Your task to perform on an android device: add a contact in the contacts app Image 0: 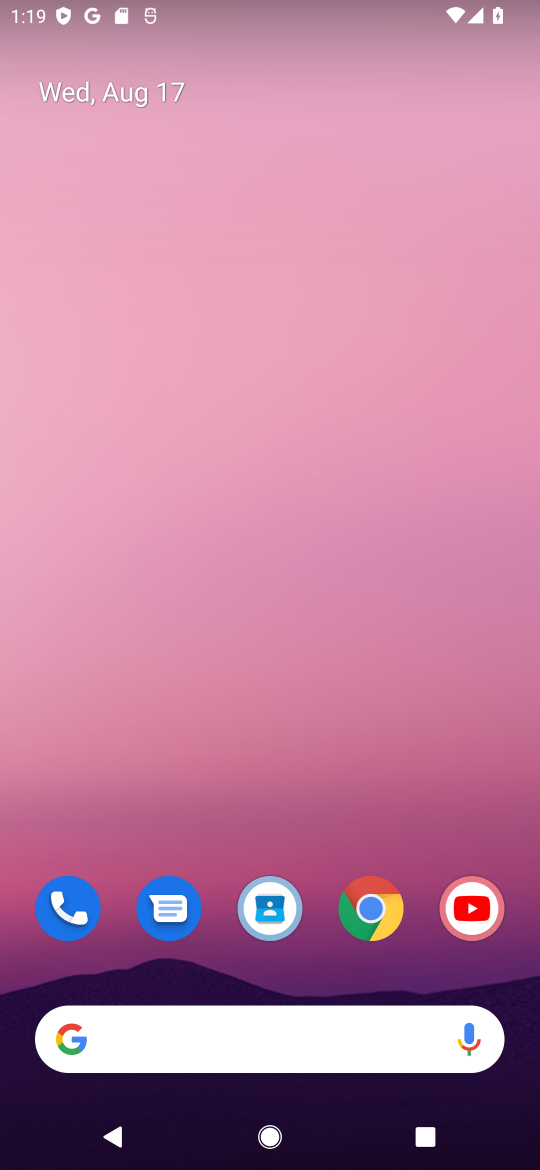
Step 0: press home button
Your task to perform on an android device: add a contact in the contacts app Image 1: 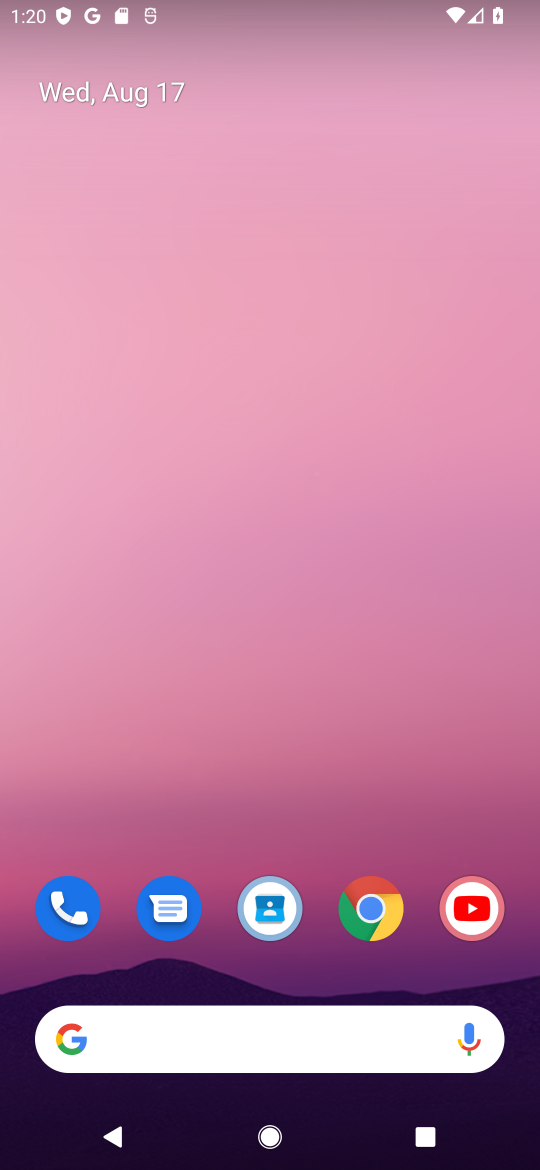
Step 1: click (267, 920)
Your task to perform on an android device: add a contact in the contacts app Image 2: 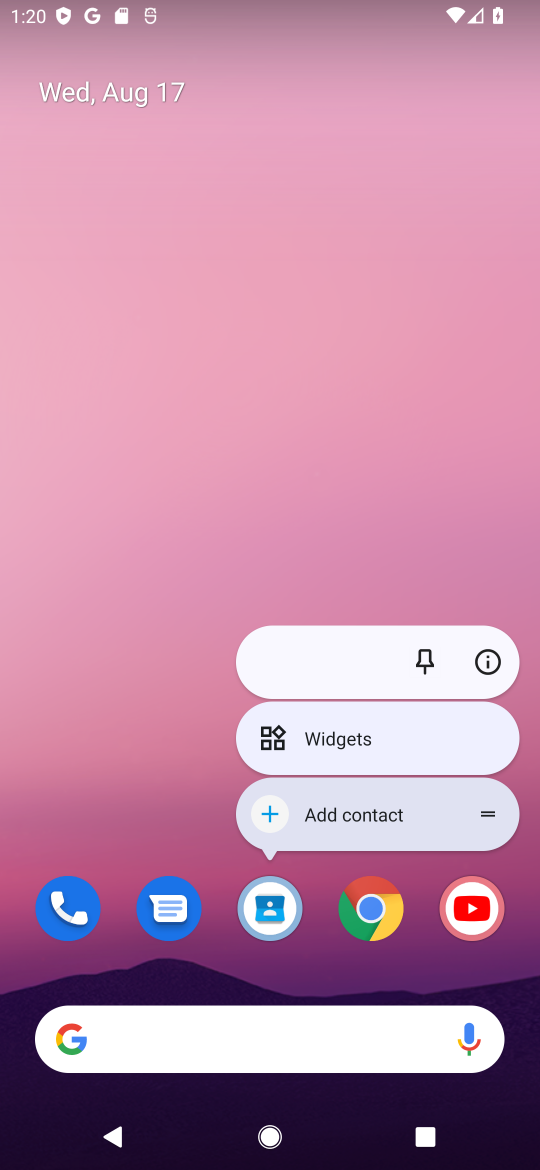
Step 2: click (267, 920)
Your task to perform on an android device: add a contact in the contacts app Image 3: 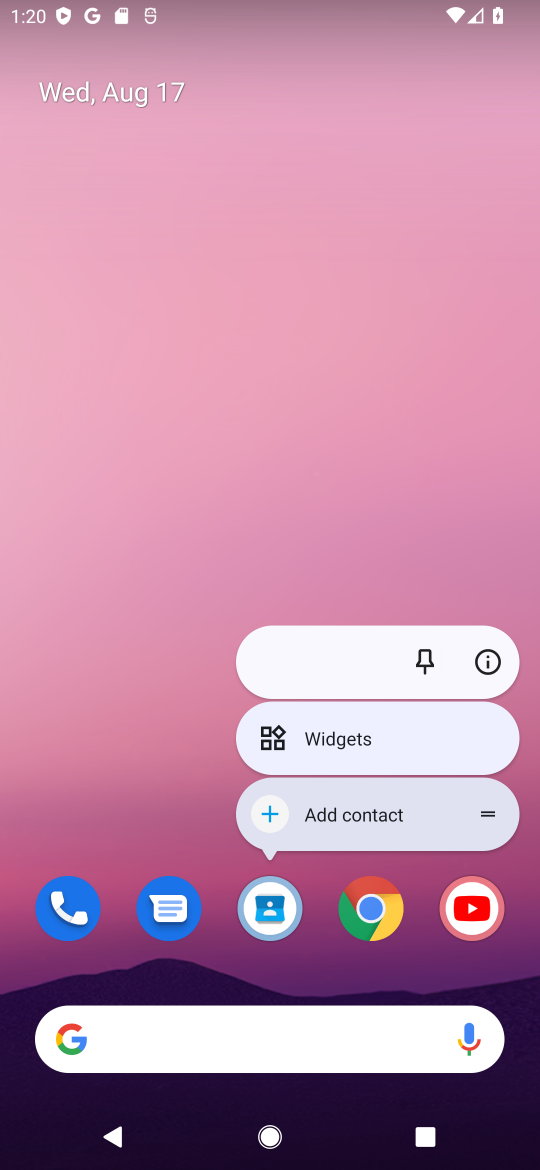
Step 3: click (267, 920)
Your task to perform on an android device: add a contact in the contacts app Image 4: 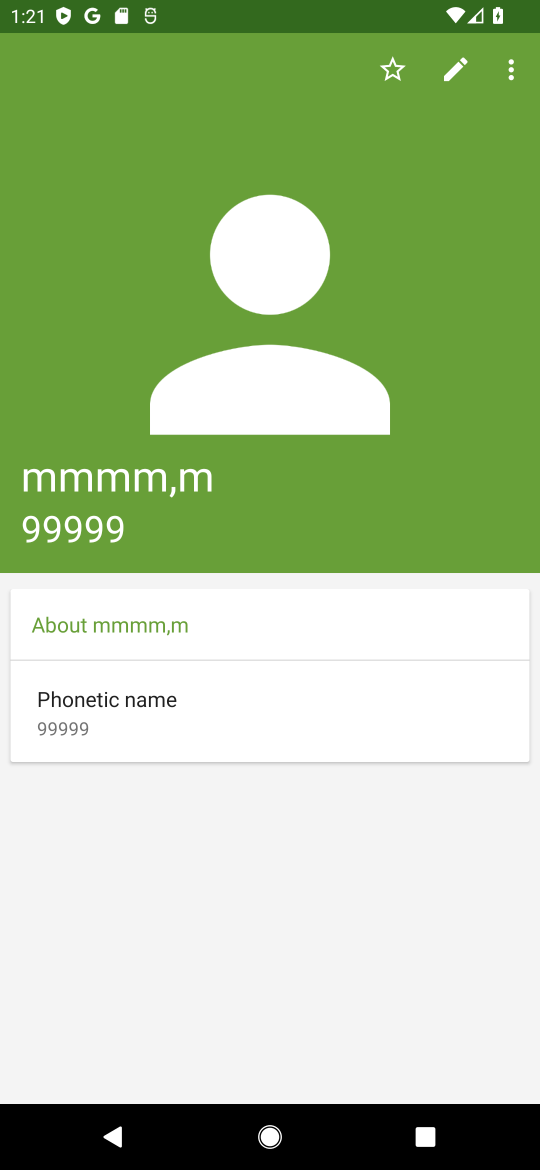
Step 4: press back button
Your task to perform on an android device: add a contact in the contacts app Image 5: 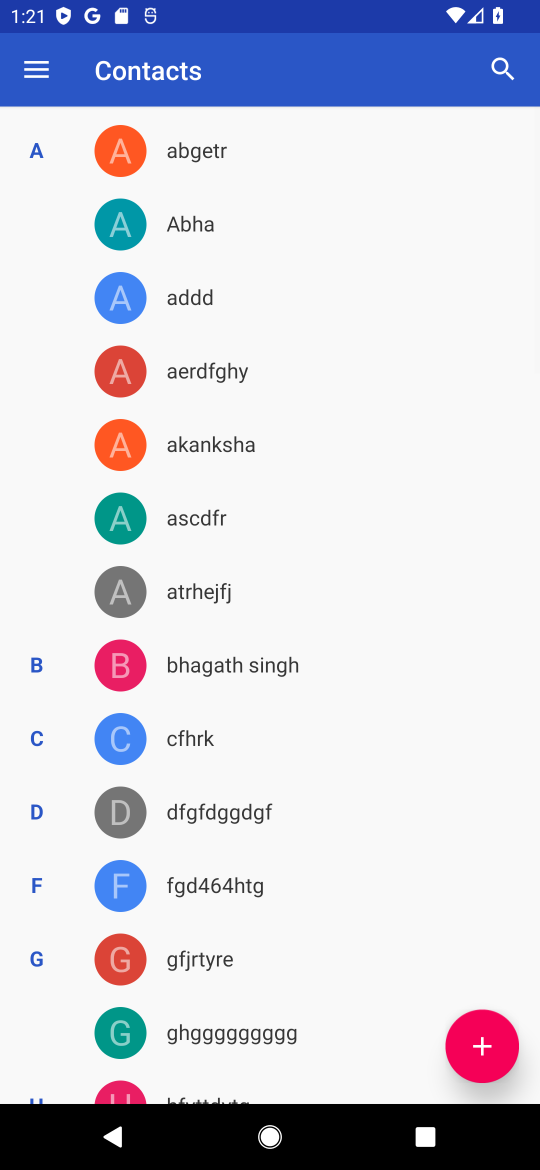
Step 5: click (473, 1057)
Your task to perform on an android device: add a contact in the contacts app Image 6: 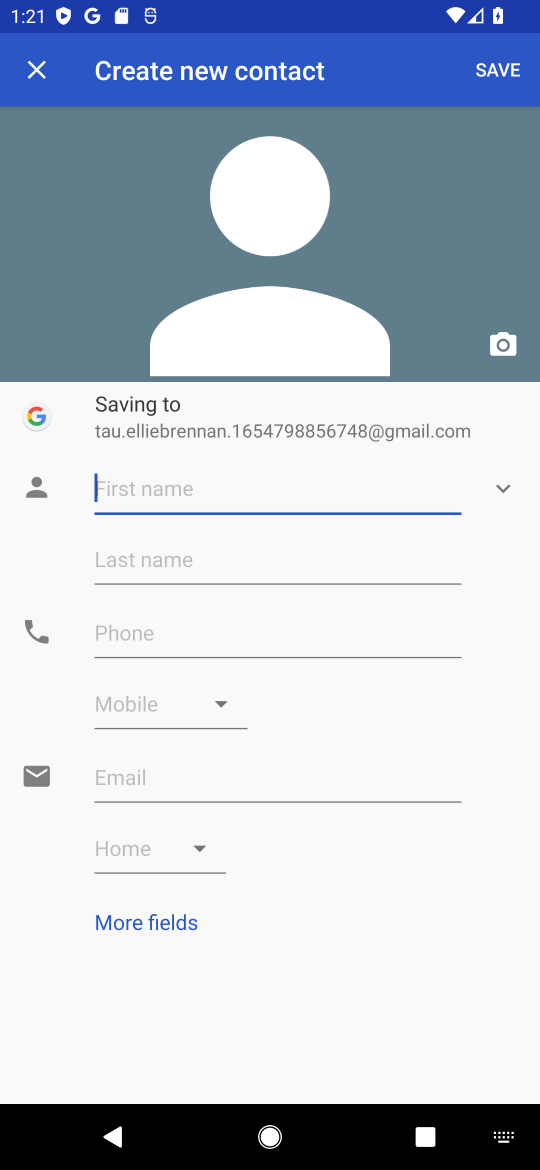
Step 6: type "ghghvh"
Your task to perform on an android device: add a contact in the contacts app Image 7: 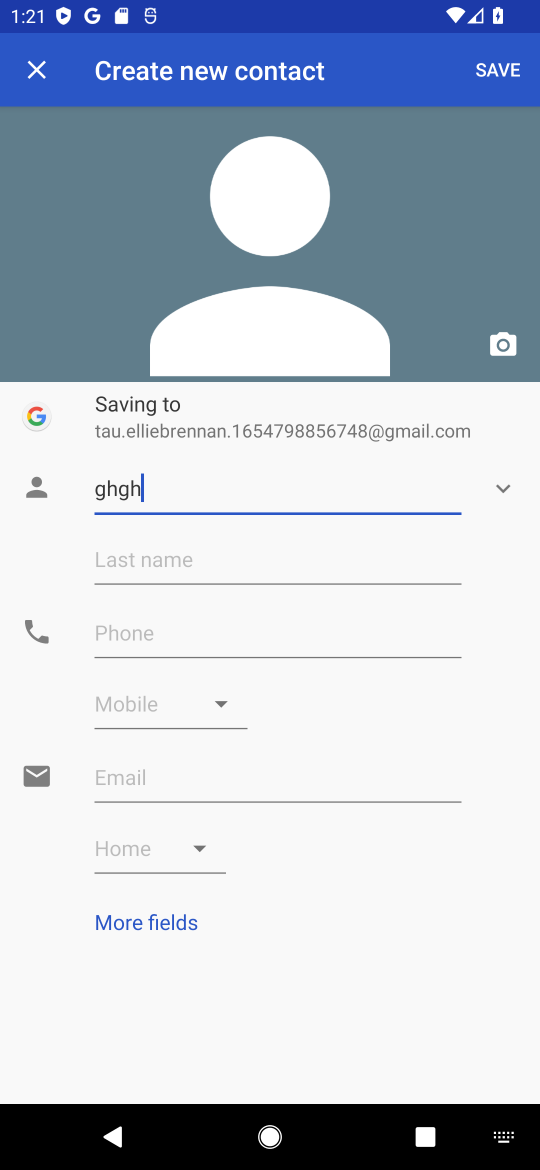
Step 7: press enter
Your task to perform on an android device: add a contact in the contacts app Image 8: 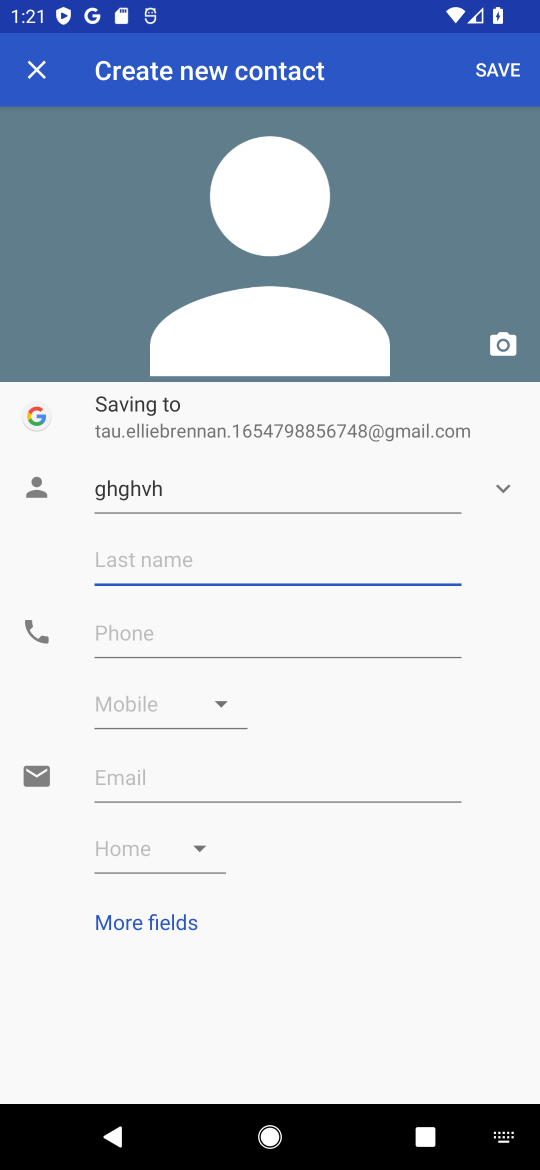
Step 8: click (162, 621)
Your task to perform on an android device: add a contact in the contacts app Image 9: 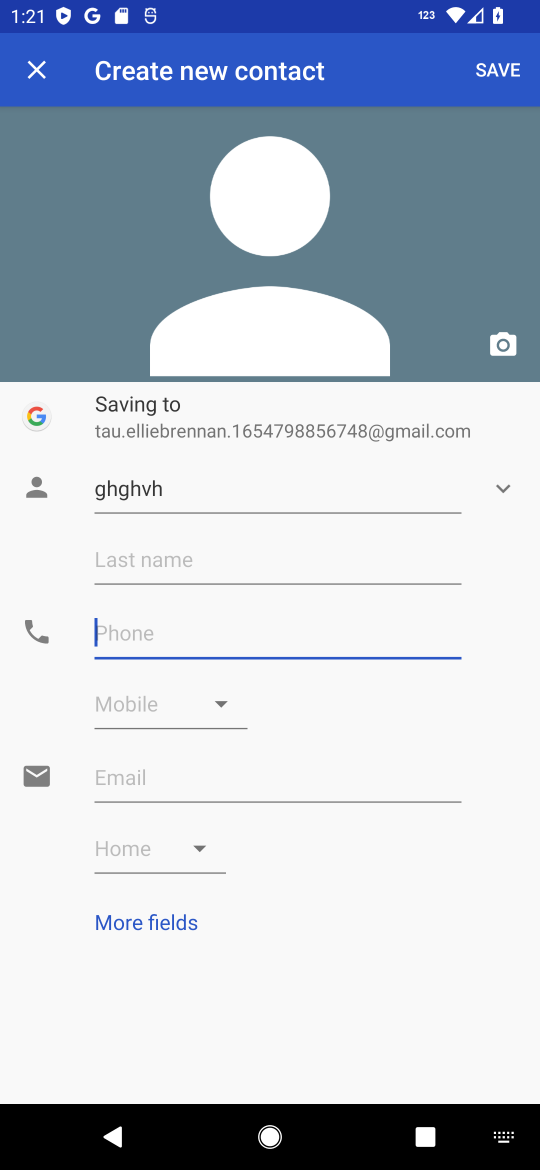
Step 9: type "67676767"
Your task to perform on an android device: add a contact in the contacts app Image 10: 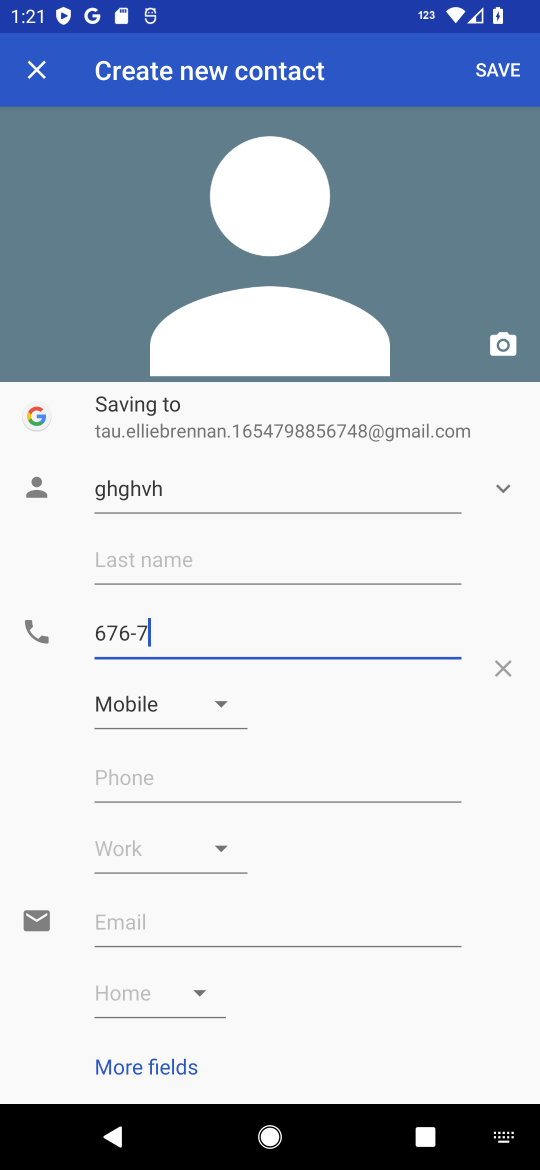
Step 10: press enter
Your task to perform on an android device: add a contact in the contacts app Image 11: 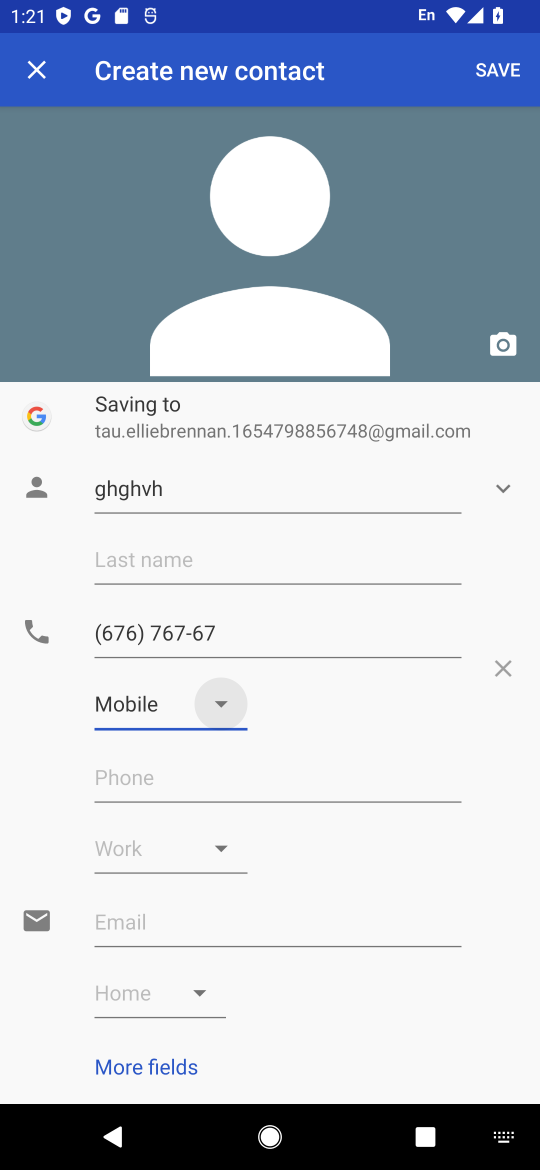
Step 11: click (485, 79)
Your task to perform on an android device: add a contact in the contacts app Image 12: 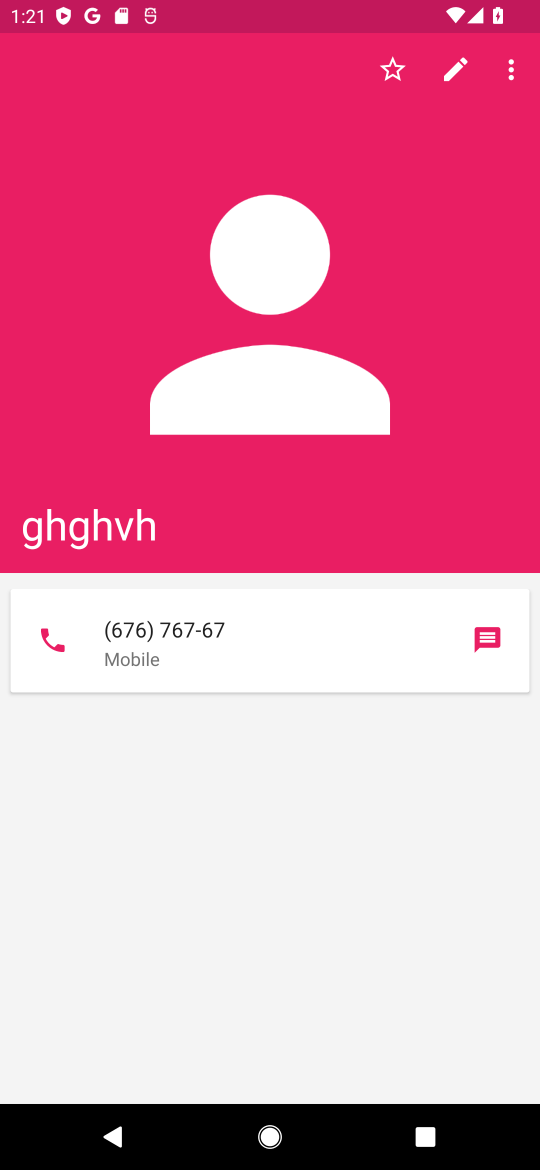
Step 12: task complete